Your task to perform on an android device: turn on the 24-hour format for clock Image 0: 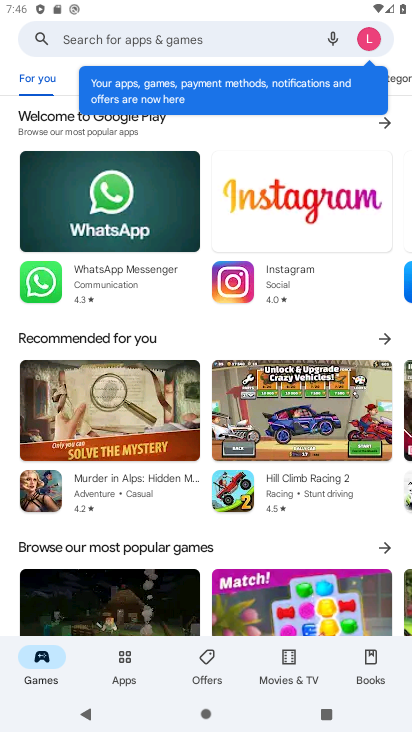
Step 0: press home button
Your task to perform on an android device: turn on the 24-hour format for clock Image 1: 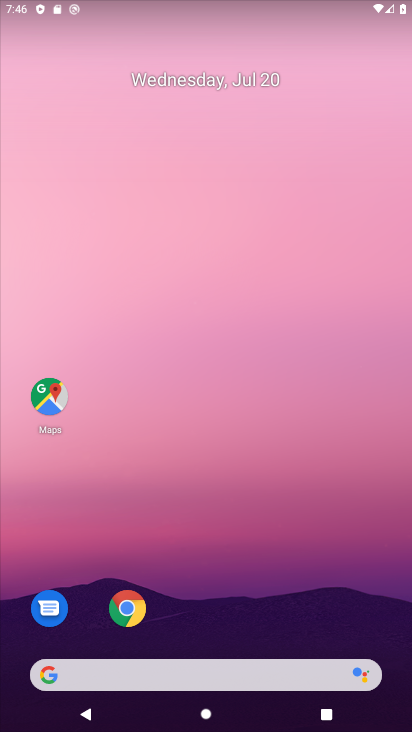
Step 1: drag from (307, 629) to (173, 78)
Your task to perform on an android device: turn on the 24-hour format for clock Image 2: 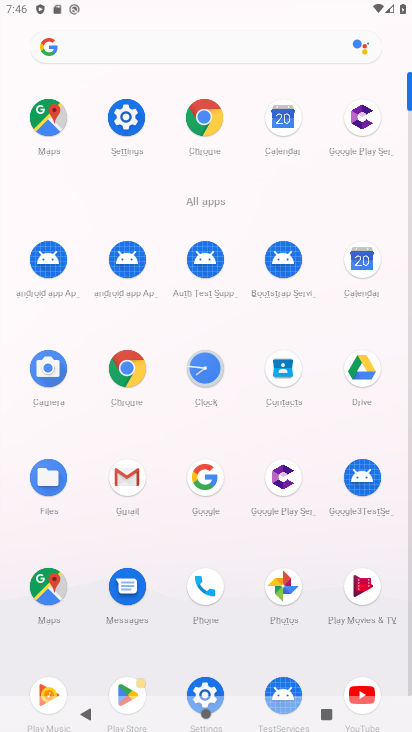
Step 2: click (204, 372)
Your task to perform on an android device: turn on the 24-hour format for clock Image 3: 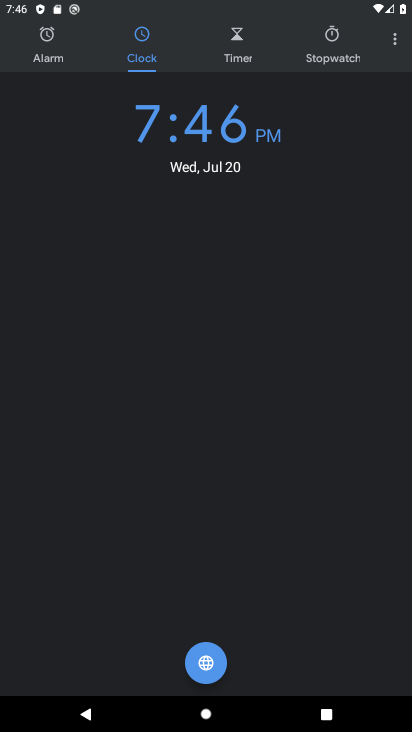
Step 3: click (397, 46)
Your task to perform on an android device: turn on the 24-hour format for clock Image 4: 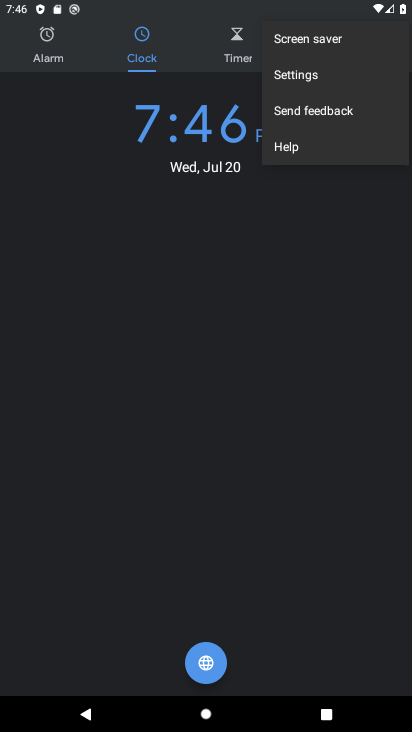
Step 4: click (305, 81)
Your task to perform on an android device: turn on the 24-hour format for clock Image 5: 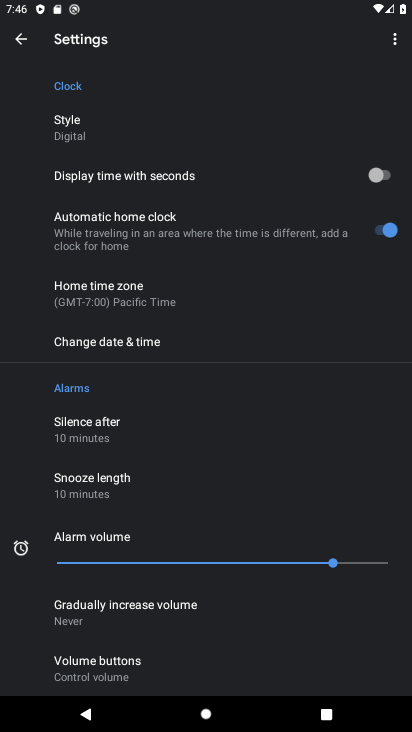
Step 5: click (156, 339)
Your task to perform on an android device: turn on the 24-hour format for clock Image 6: 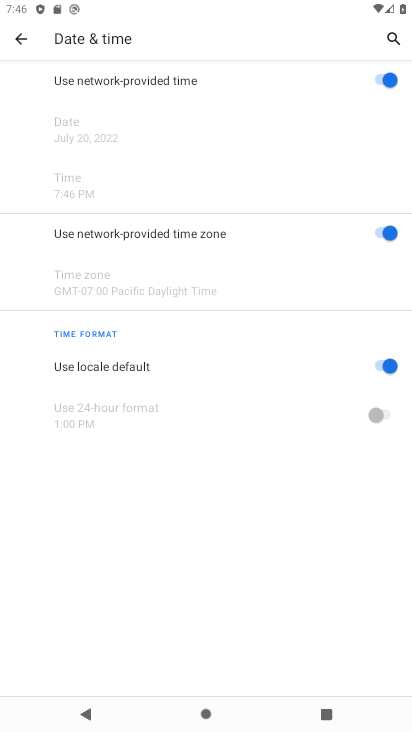
Step 6: click (391, 366)
Your task to perform on an android device: turn on the 24-hour format for clock Image 7: 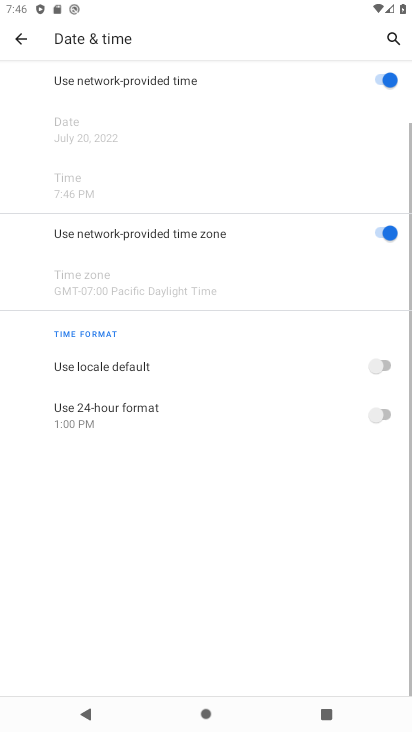
Step 7: click (377, 410)
Your task to perform on an android device: turn on the 24-hour format for clock Image 8: 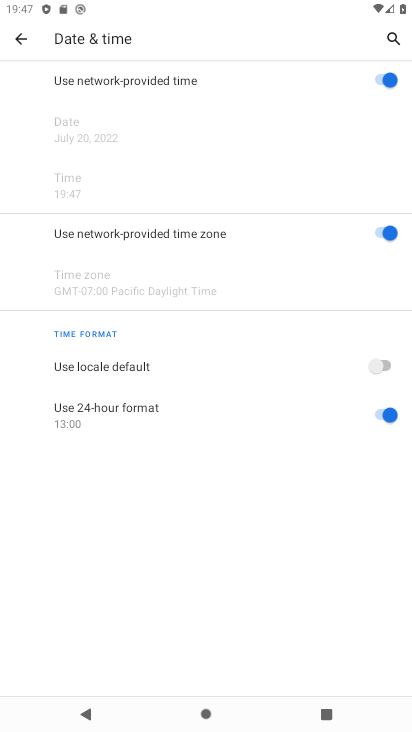
Step 8: task complete